Your task to perform on an android device: Show me recent news Image 0: 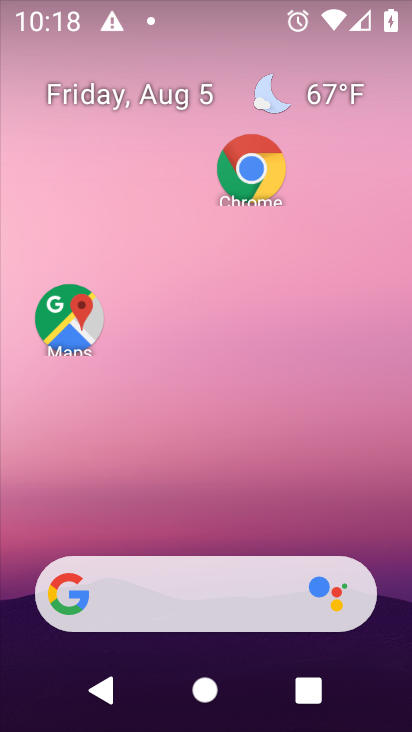
Step 0: drag from (177, 517) to (178, 93)
Your task to perform on an android device: Show me recent news Image 1: 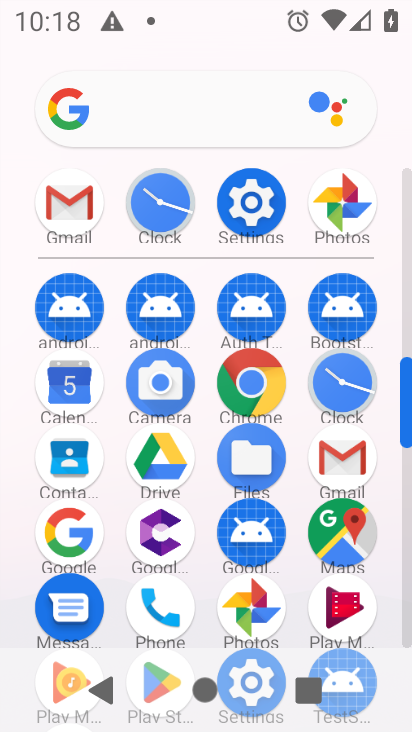
Step 1: click (92, 523)
Your task to perform on an android device: Show me recent news Image 2: 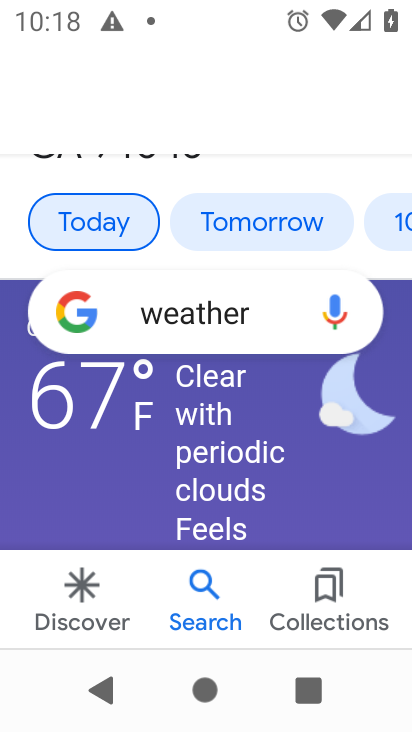
Step 2: drag from (210, 290) to (245, 598)
Your task to perform on an android device: Show me recent news Image 3: 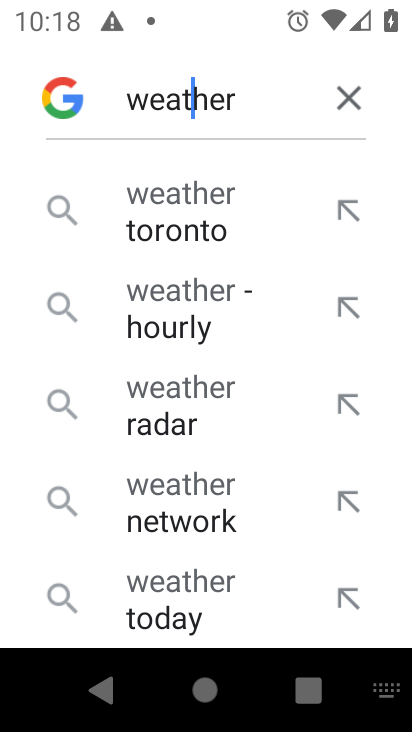
Step 3: click (343, 77)
Your task to perform on an android device: Show me recent news Image 4: 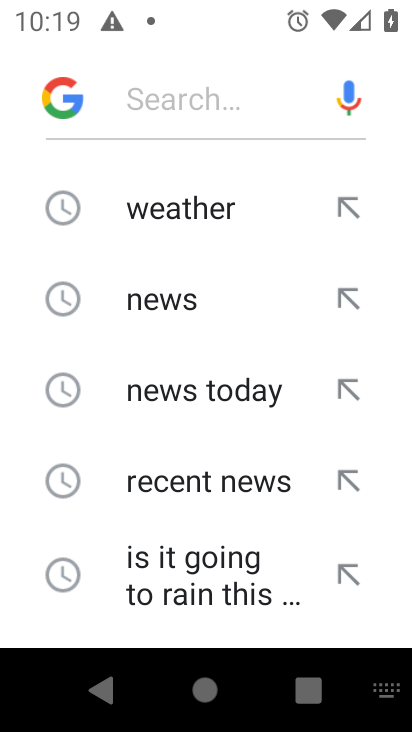
Step 4: click (175, 311)
Your task to perform on an android device: Show me recent news Image 5: 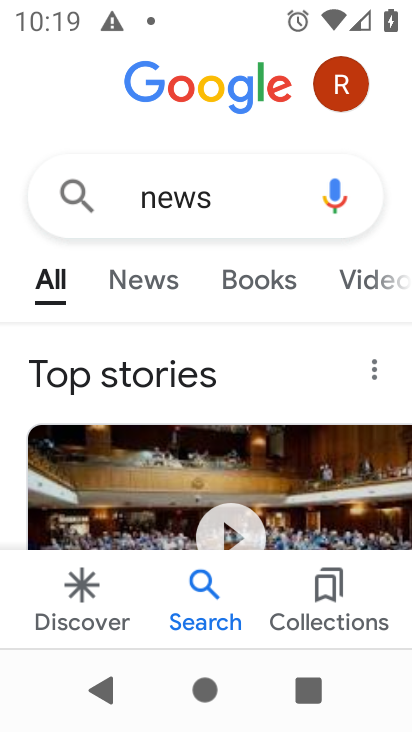
Step 5: click (154, 288)
Your task to perform on an android device: Show me recent news Image 6: 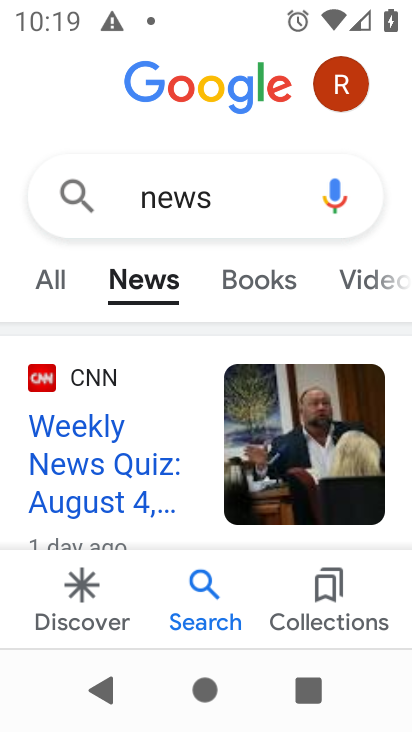
Step 6: task complete